Your task to perform on an android device: Open internet settings Image 0: 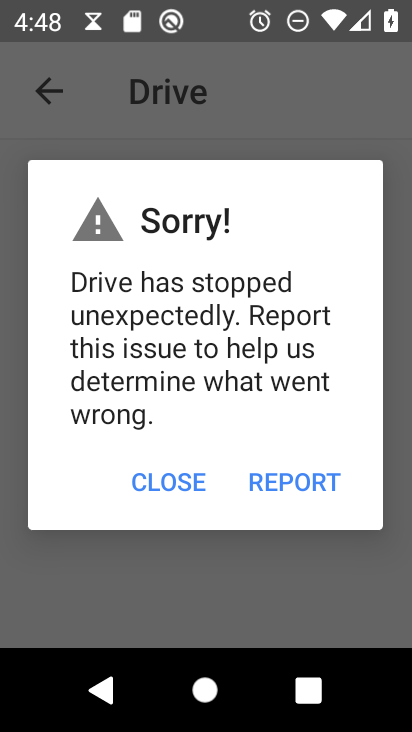
Step 0: press home button
Your task to perform on an android device: Open internet settings Image 1: 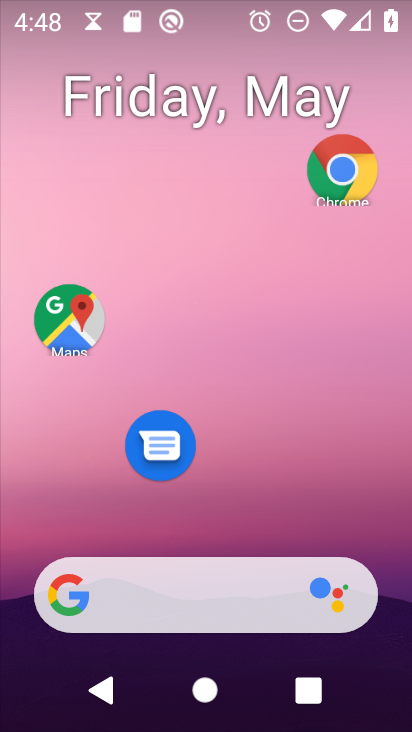
Step 1: drag from (223, 542) to (156, 90)
Your task to perform on an android device: Open internet settings Image 2: 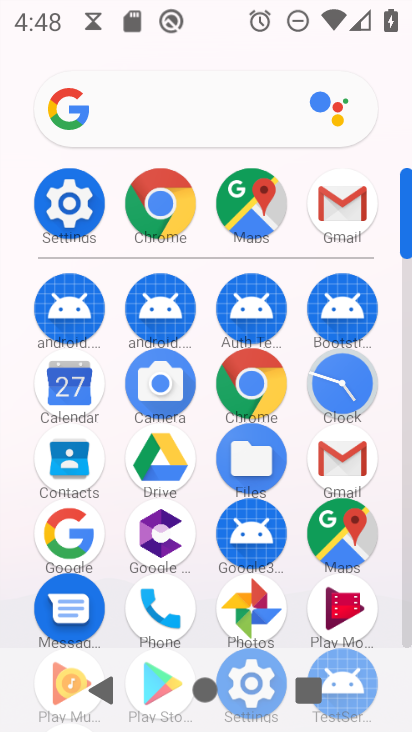
Step 2: click (65, 208)
Your task to perform on an android device: Open internet settings Image 3: 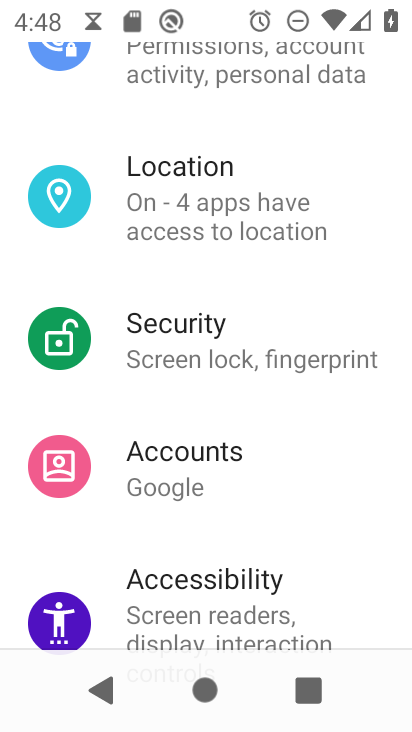
Step 3: drag from (173, 191) to (209, 670)
Your task to perform on an android device: Open internet settings Image 4: 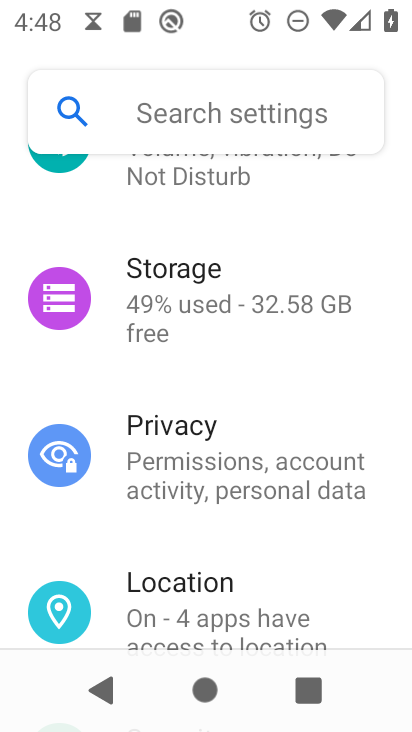
Step 4: drag from (214, 256) to (195, 647)
Your task to perform on an android device: Open internet settings Image 5: 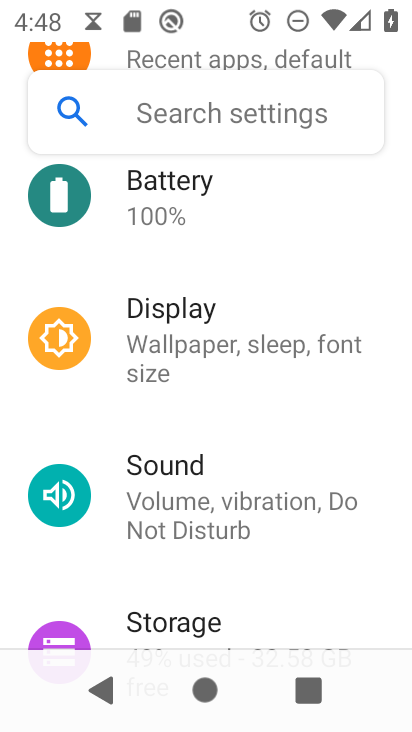
Step 5: drag from (214, 258) to (194, 664)
Your task to perform on an android device: Open internet settings Image 6: 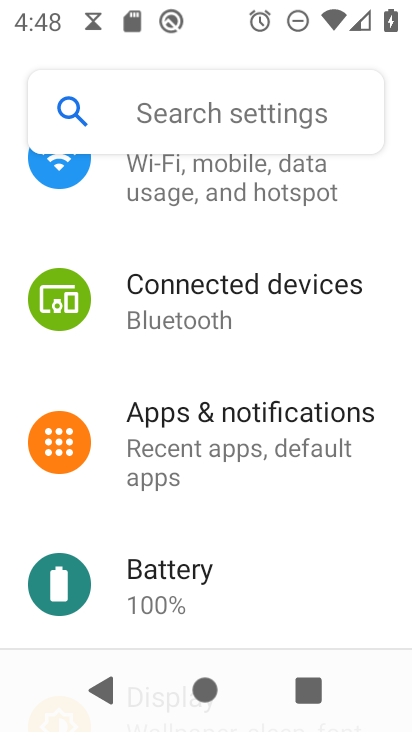
Step 6: drag from (212, 300) to (215, 698)
Your task to perform on an android device: Open internet settings Image 7: 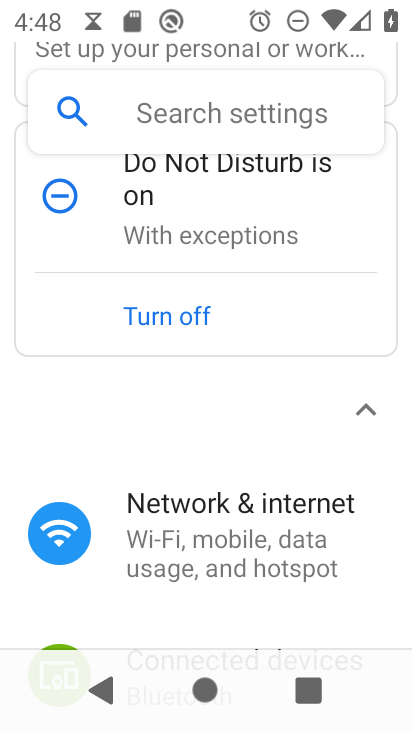
Step 7: click (234, 516)
Your task to perform on an android device: Open internet settings Image 8: 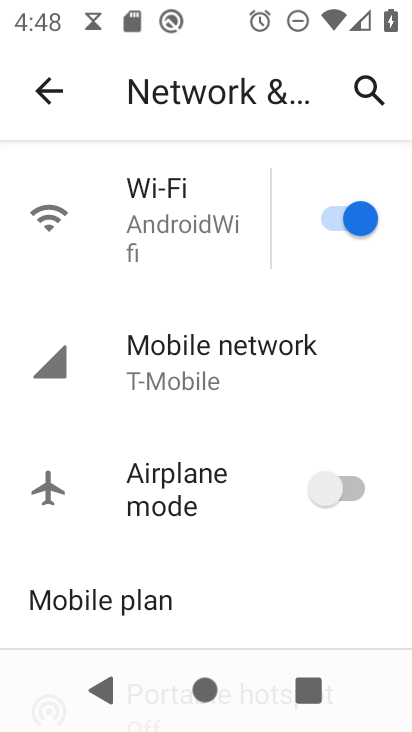
Step 8: task complete